Your task to perform on an android device: delete a single message in the gmail app Image 0: 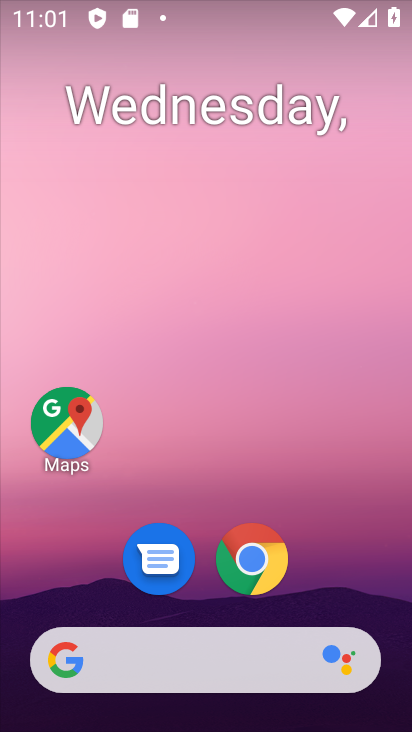
Step 0: drag from (371, 596) to (264, 158)
Your task to perform on an android device: delete a single message in the gmail app Image 1: 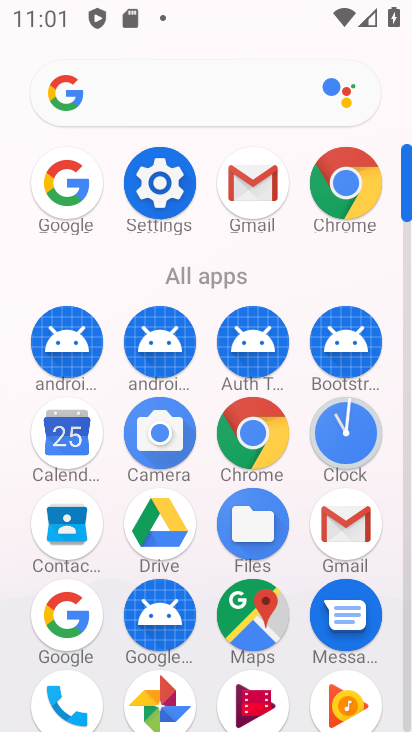
Step 1: click (272, 208)
Your task to perform on an android device: delete a single message in the gmail app Image 2: 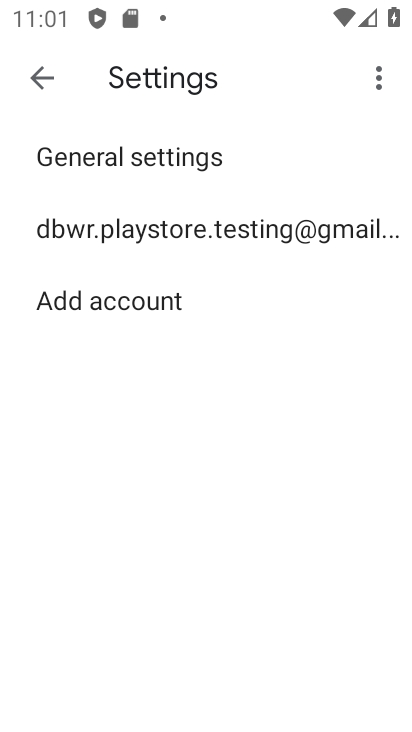
Step 2: click (52, 80)
Your task to perform on an android device: delete a single message in the gmail app Image 3: 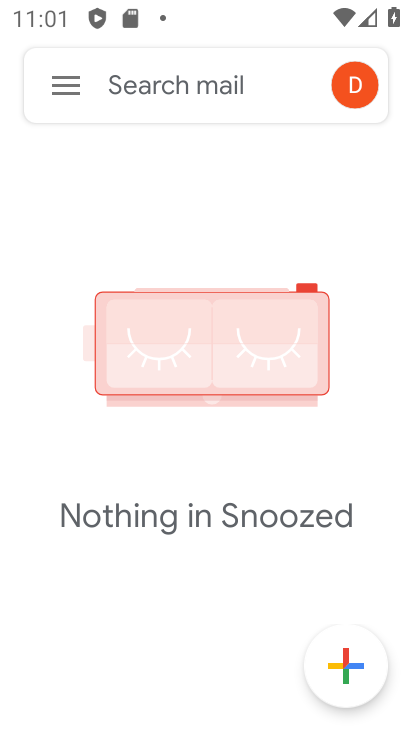
Step 3: click (52, 80)
Your task to perform on an android device: delete a single message in the gmail app Image 4: 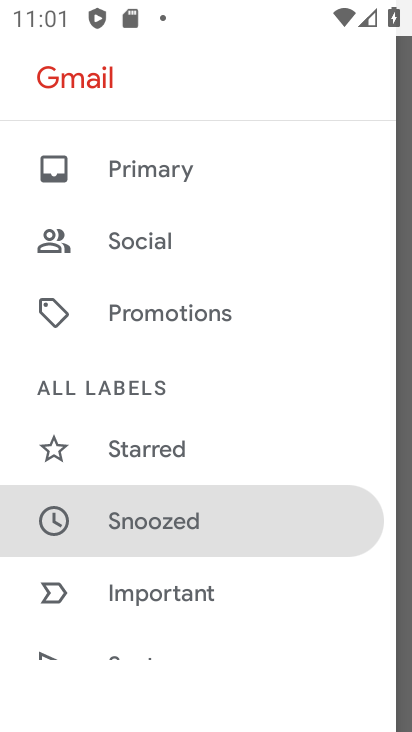
Step 4: drag from (188, 187) to (202, 559)
Your task to perform on an android device: delete a single message in the gmail app Image 5: 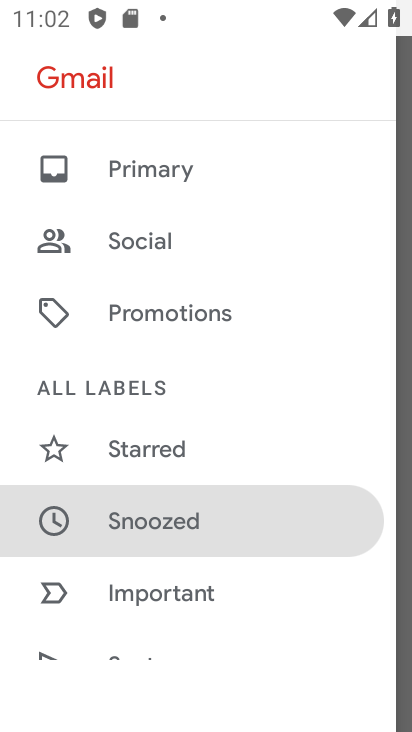
Step 5: drag from (240, 598) to (203, 277)
Your task to perform on an android device: delete a single message in the gmail app Image 6: 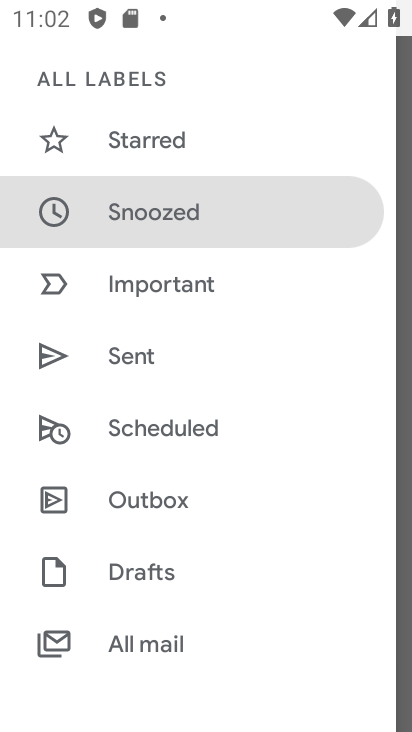
Step 6: drag from (240, 612) to (197, 375)
Your task to perform on an android device: delete a single message in the gmail app Image 7: 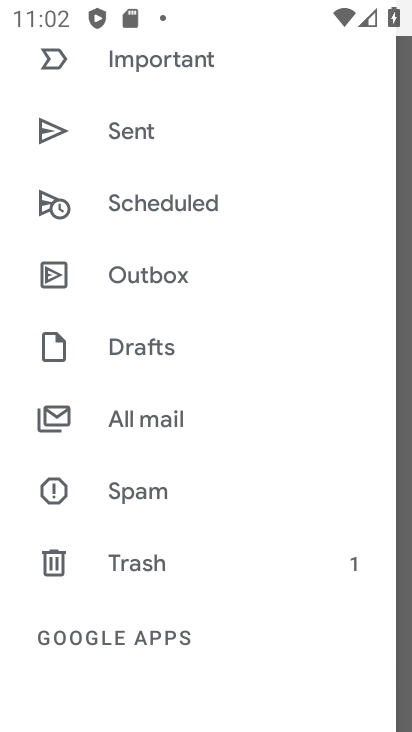
Step 7: click (190, 395)
Your task to perform on an android device: delete a single message in the gmail app Image 8: 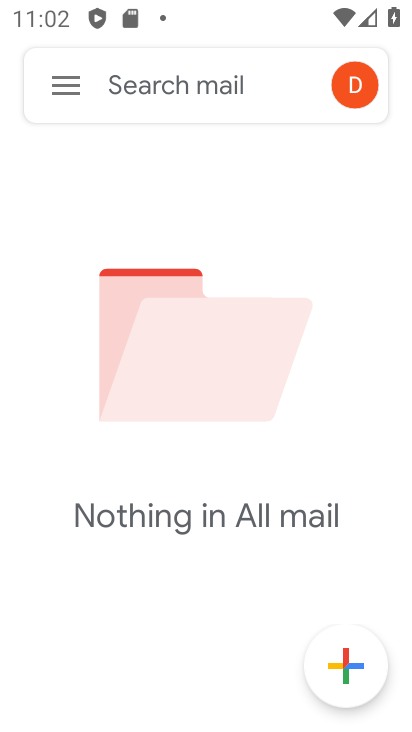
Step 8: task complete